Your task to perform on an android device: Search for the new nike air max shoes on Nike. Image 0: 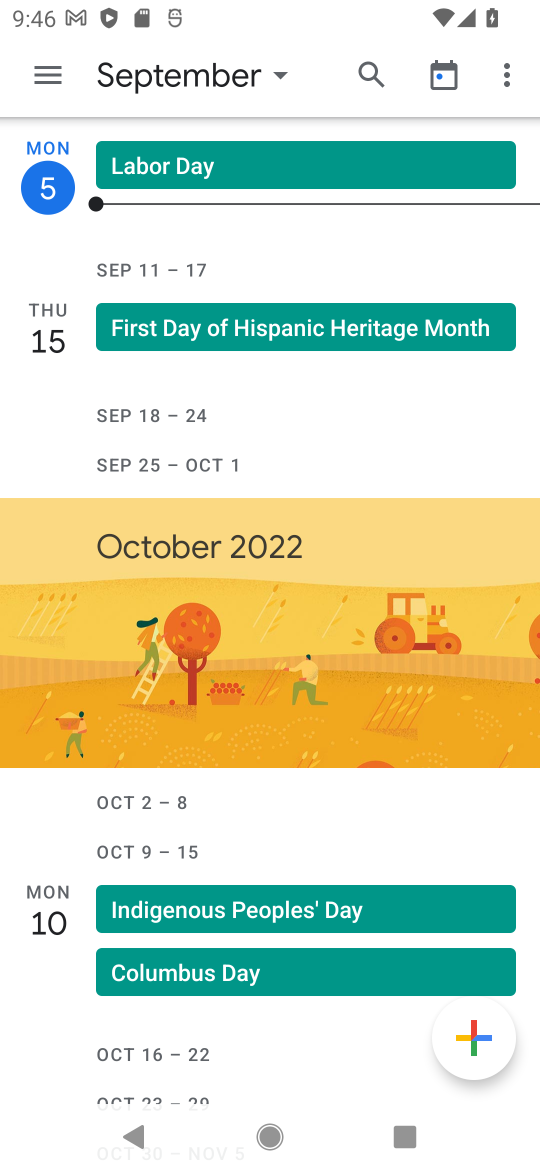
Step 0: press home button
Your task to perform on an android device: Search for the new nike air max shoes on Nike. Image 1: 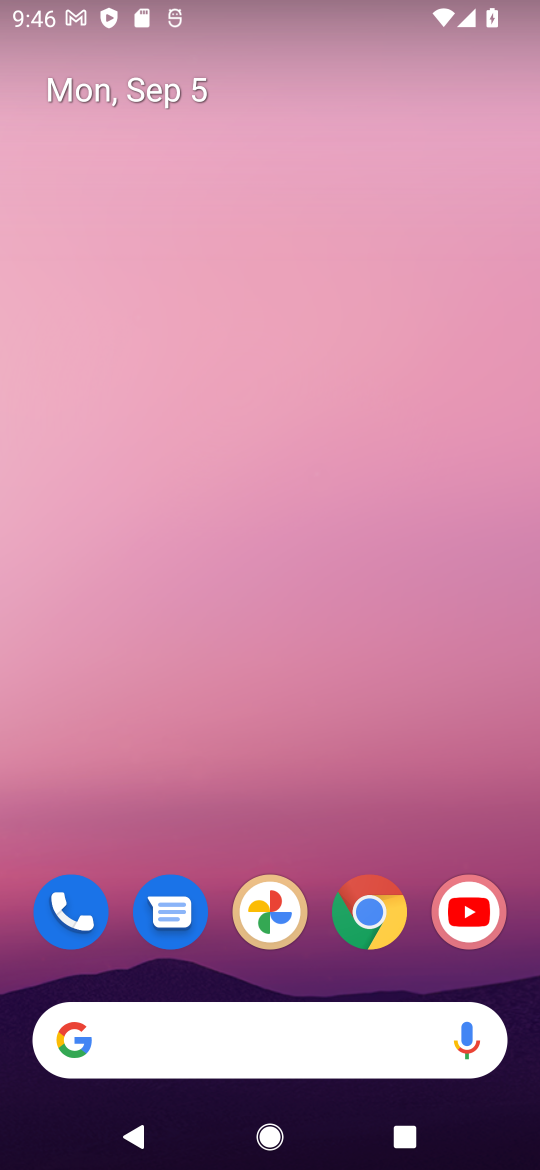
Step 1: click (363, 921)
Your task to perform on an android device: Search for the new nike air max shoes on Nike. Image 2: 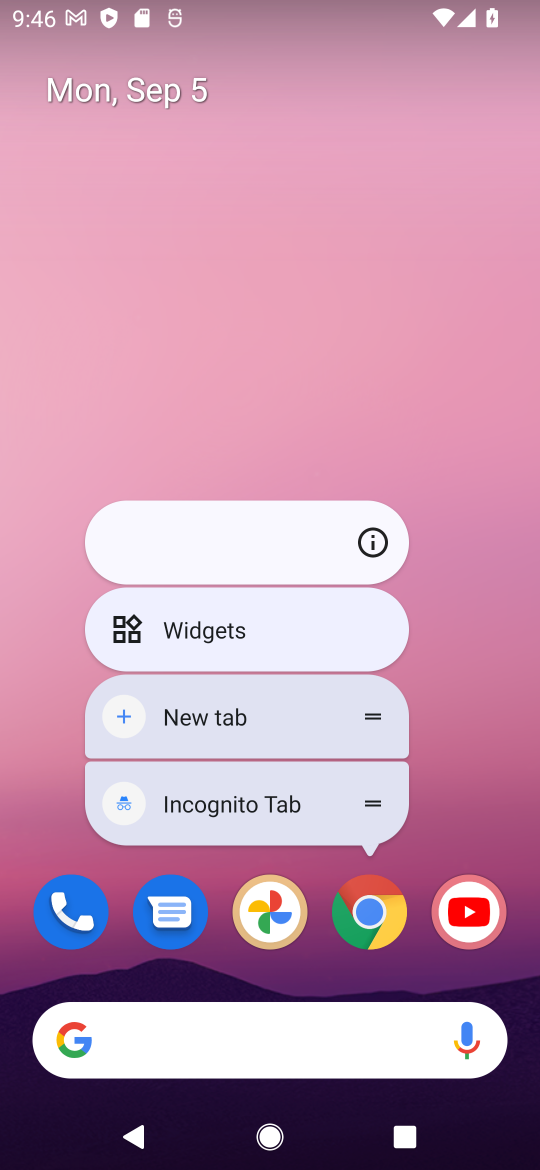
Step 2: click (363, 921)
Your task to perform on an android device: Search for the new nike air max shoes on Nike. Image 3: 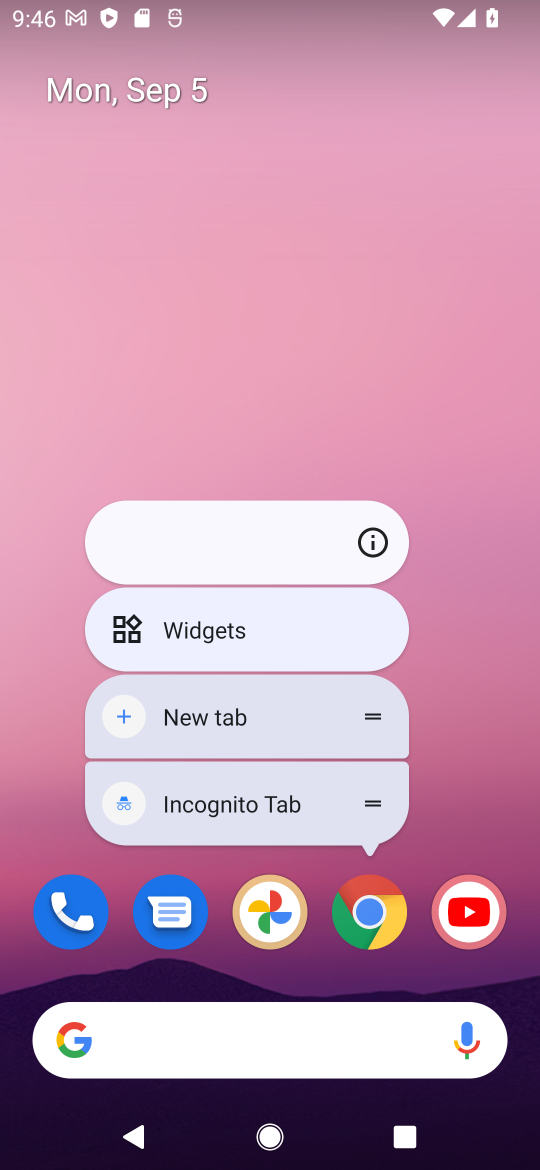
Step 3: click (469, 828)
Your task to perform on an android device: Search for the new nike air max shoes on Nike. Image 4: 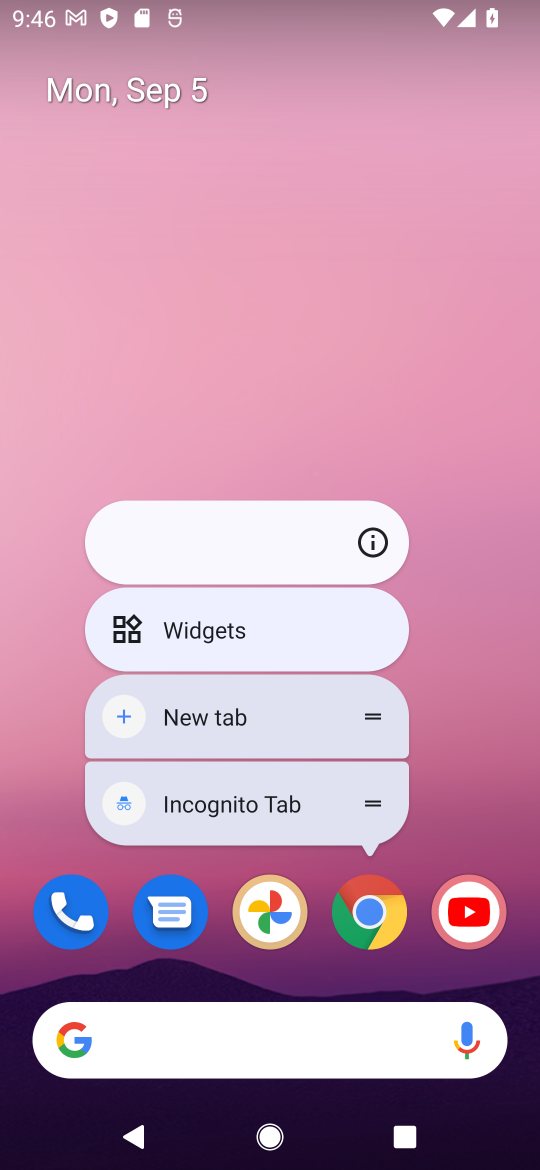
Step 4: click (371, 912)
Your task to perform on an android device: Search for the new nike air max shoes on Nike. Image 5: 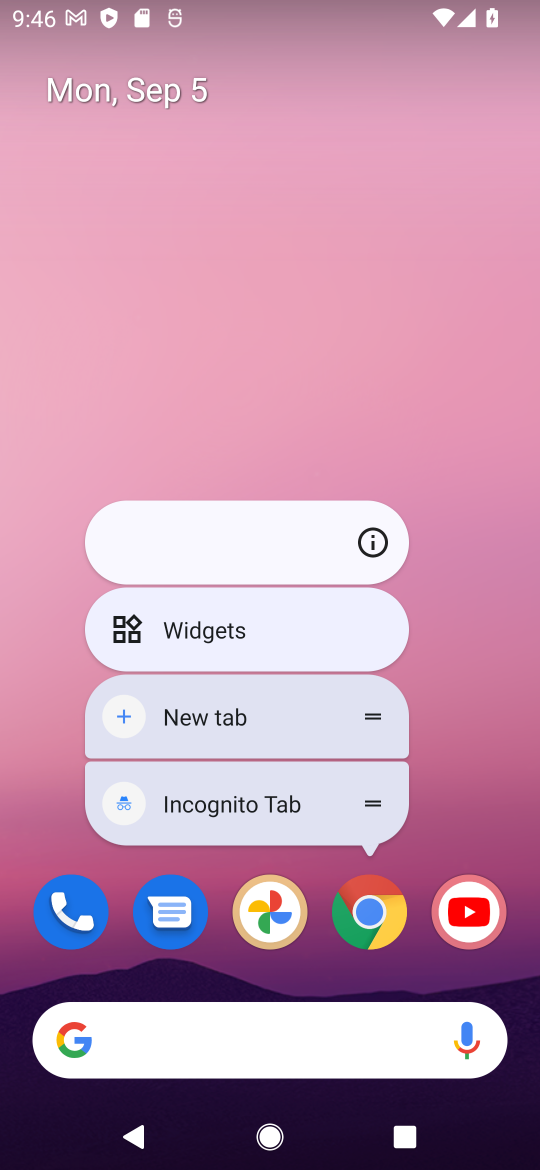
Step 5: click (486, 832)
Your task to perform on an android device: Search for the new nike air max shoes on Nike. Image 6: 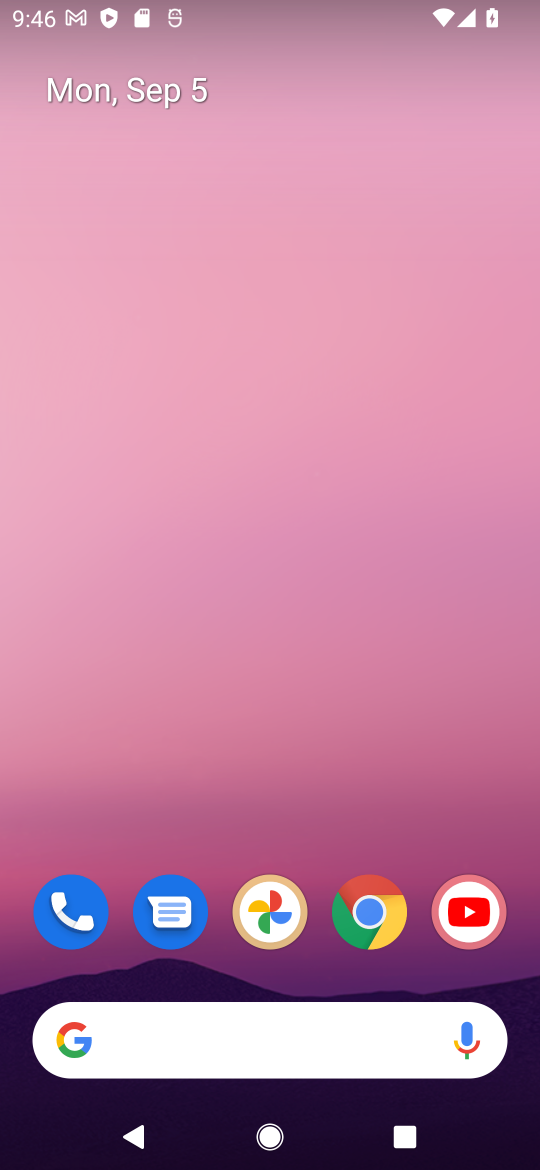
Step 6: click (371, 912)
Your task to perform on an android device: Search for the new nike air max shoes on Nike. Image 7: 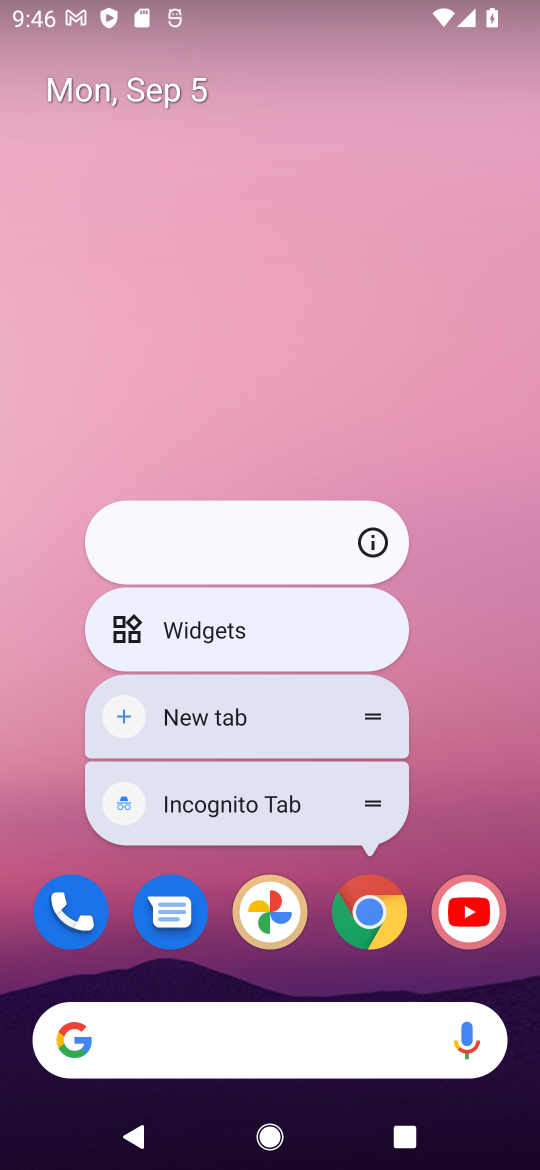
Step 7: click (369, 919)
Your task to perform on an android device: Search for the new nike air max shoes on Nike. Image 8: 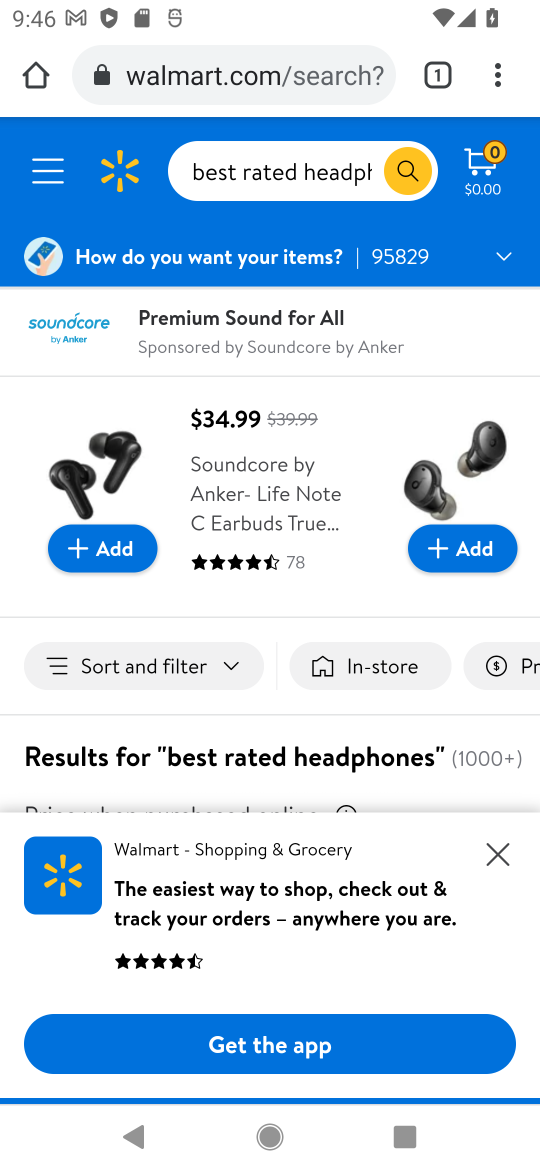
Step 8: click (227, 70)
Your task to perform on an android device: Search for the new nike air max shoes on Nike. Image 9: 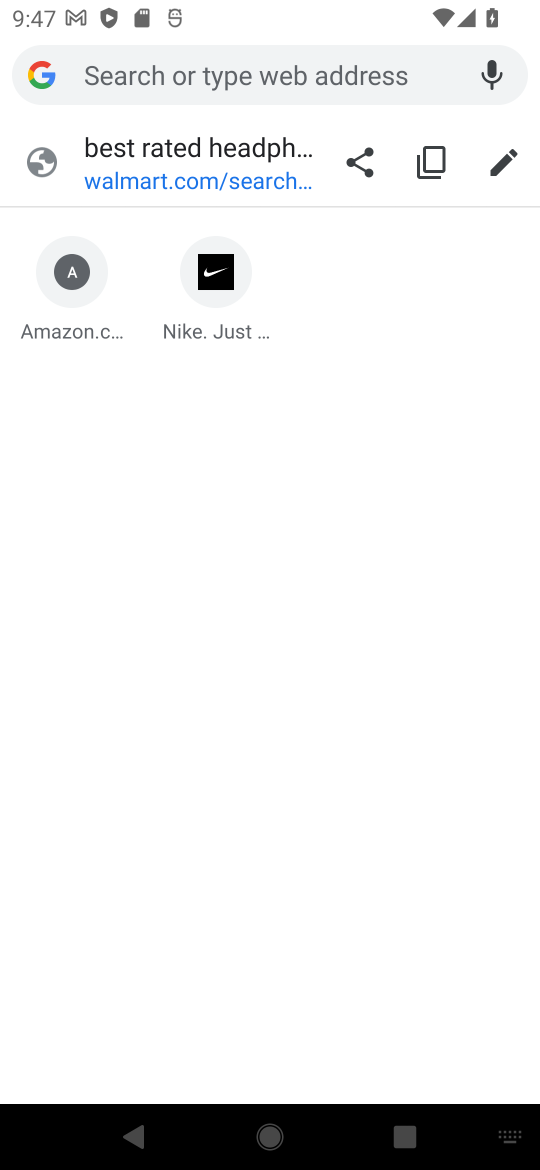
Step 9: type "nike"
Your task to perform on an android device: Search for the new nike air max shoes on Nike. Image 10: 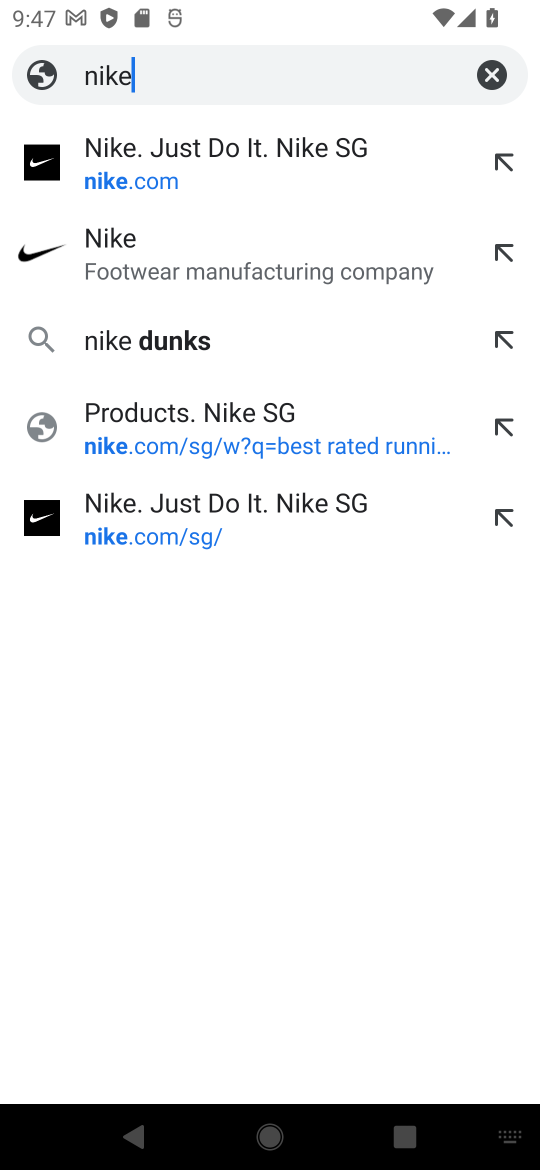
Step 10: click (126, 179)
Your task to perform on an android device: Search for the new nike air max shoes on Nike. Image 11: 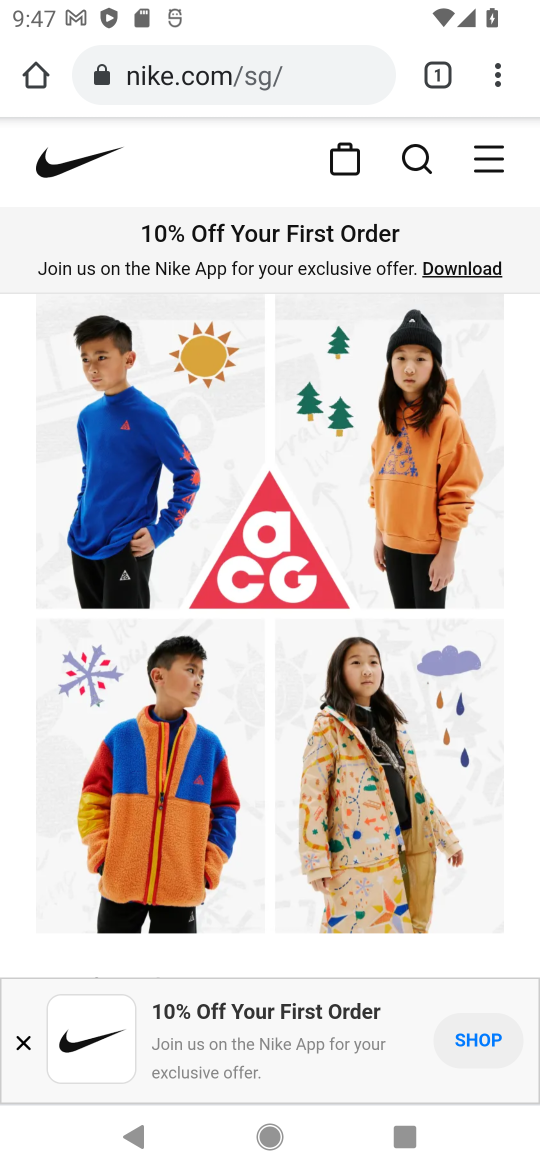
Step 11: click (405, 158)
Your task to perform on an android device: Search for the new nike air max shoes on Nike. Image 12: 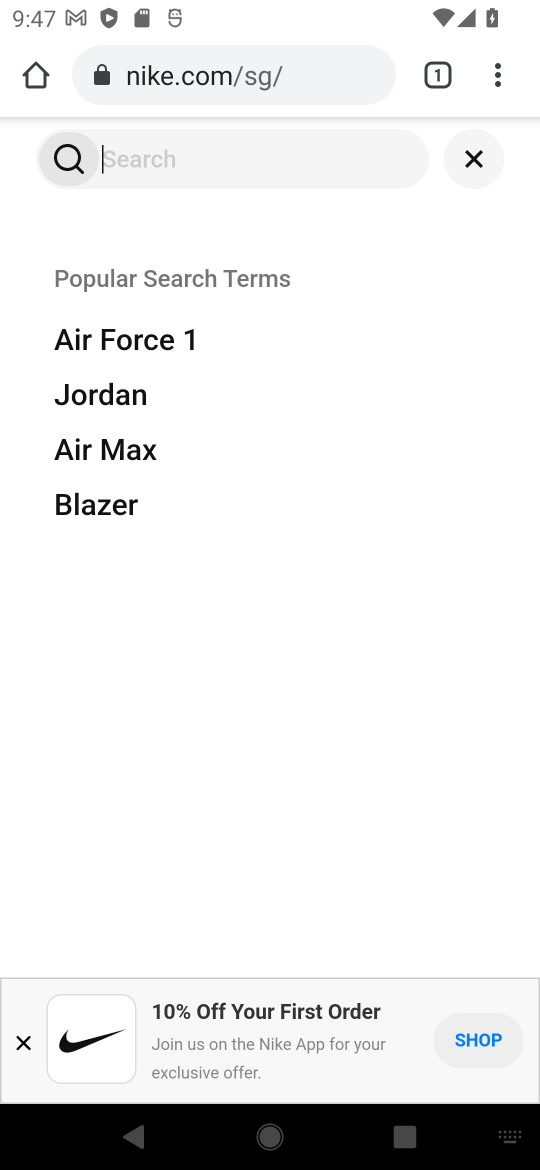
Step 12: type " new nike air max shoes"
Your task to perform on an android device: Search for the new nike air max shoes on Nike. Image 13: 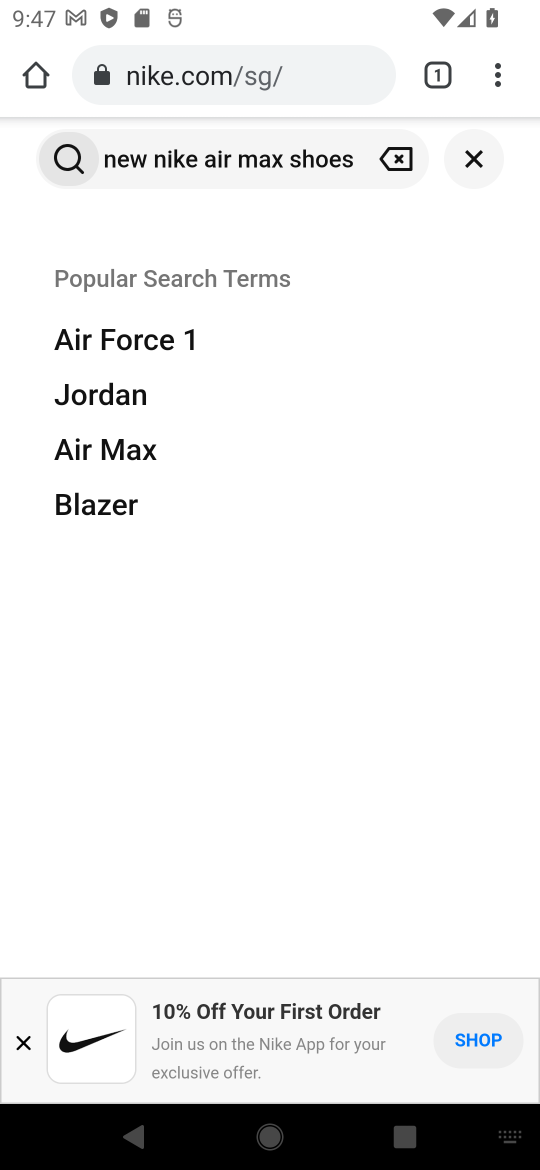
Step 13: click (72, 159)
Your task to perform on an android device: Search for the new nike air max shoes on Nike. Image 14: 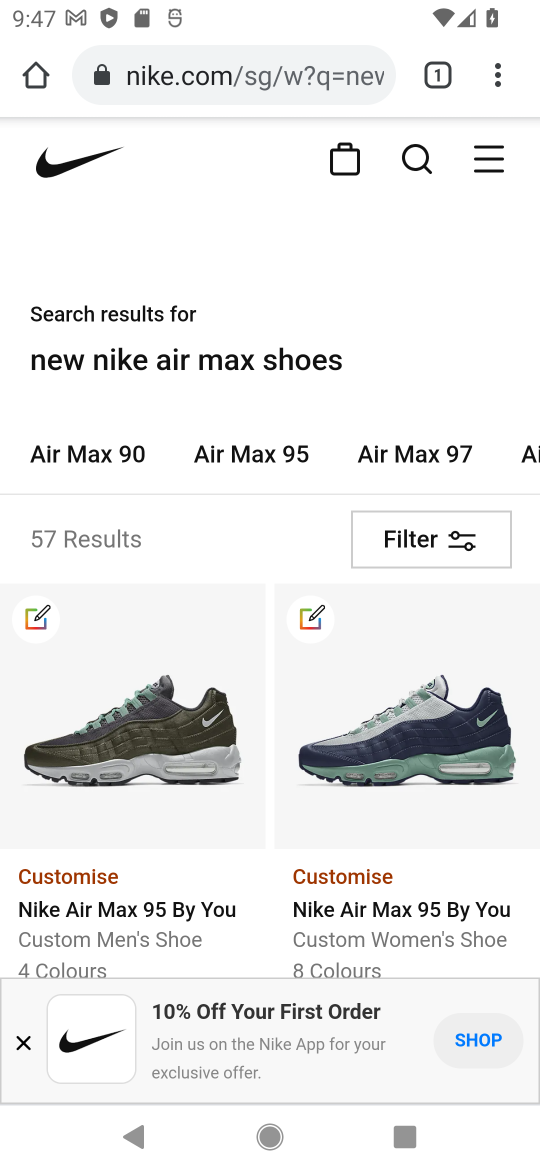
Step 14: task complete